Your task to perform on an android device: delete location history Image 0: 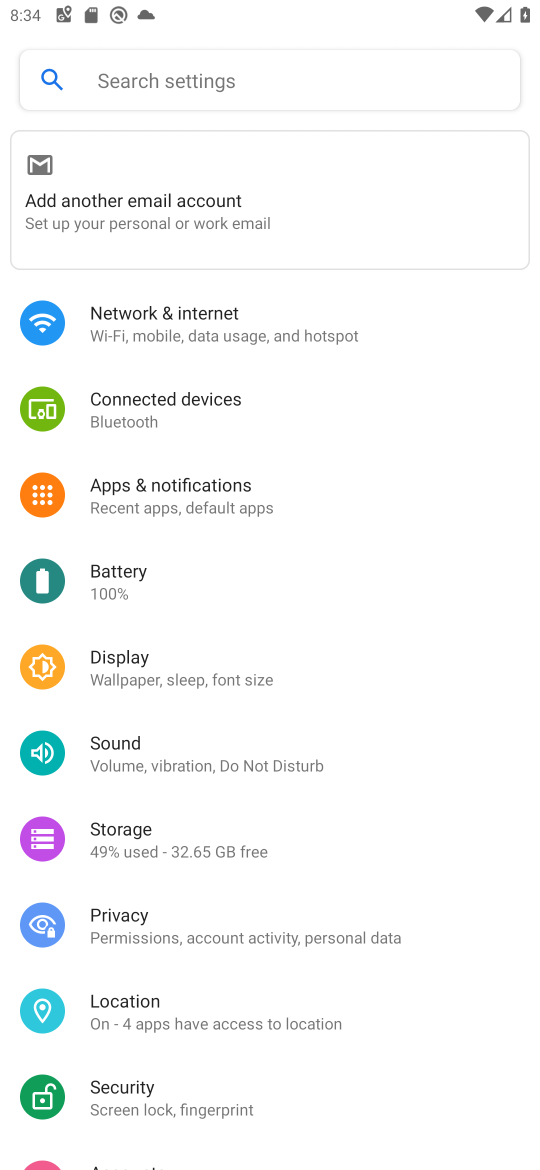
Step 0: press home button
Your task to perform on an android device: delete location history Image 1: 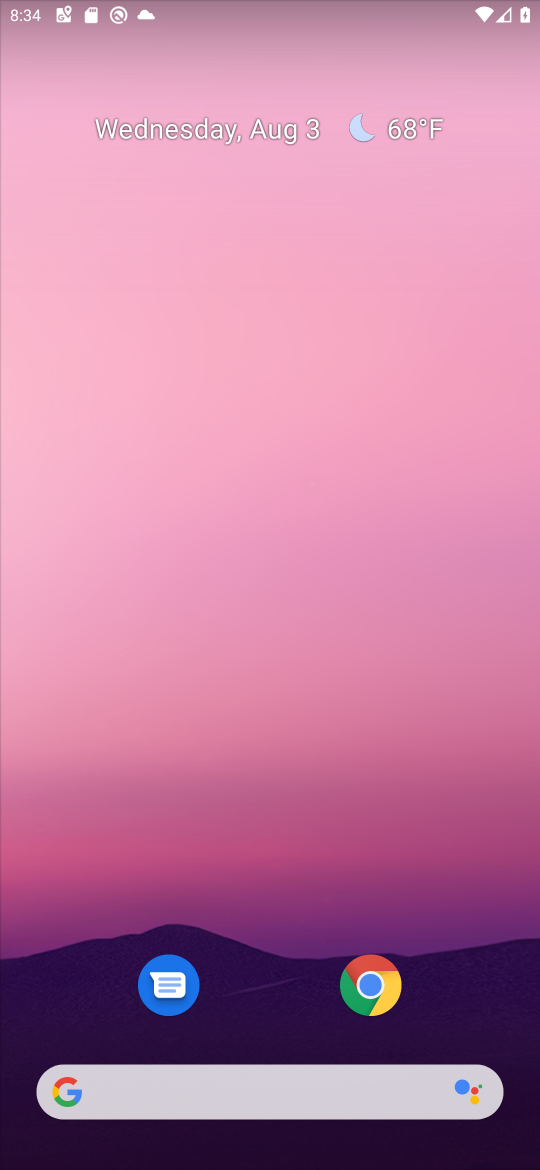
Step 1: drag from (210, 1014) to (212, 243)
Your task to perform on an android device: delete location history Image 2: 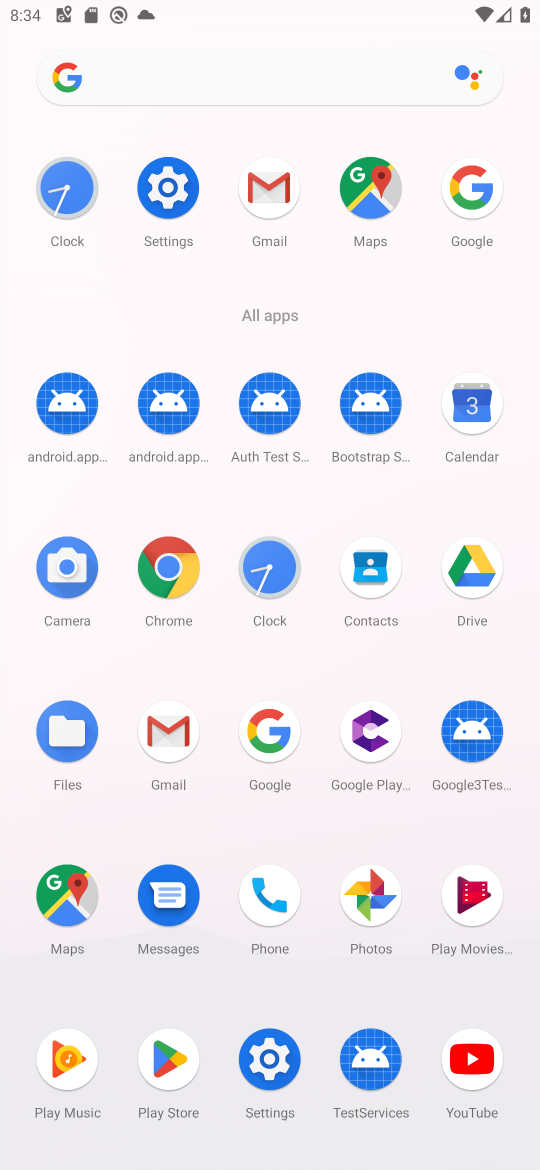
Step 2: click (394, 218)
Your task to perform on an android device: delete location history Image 3: 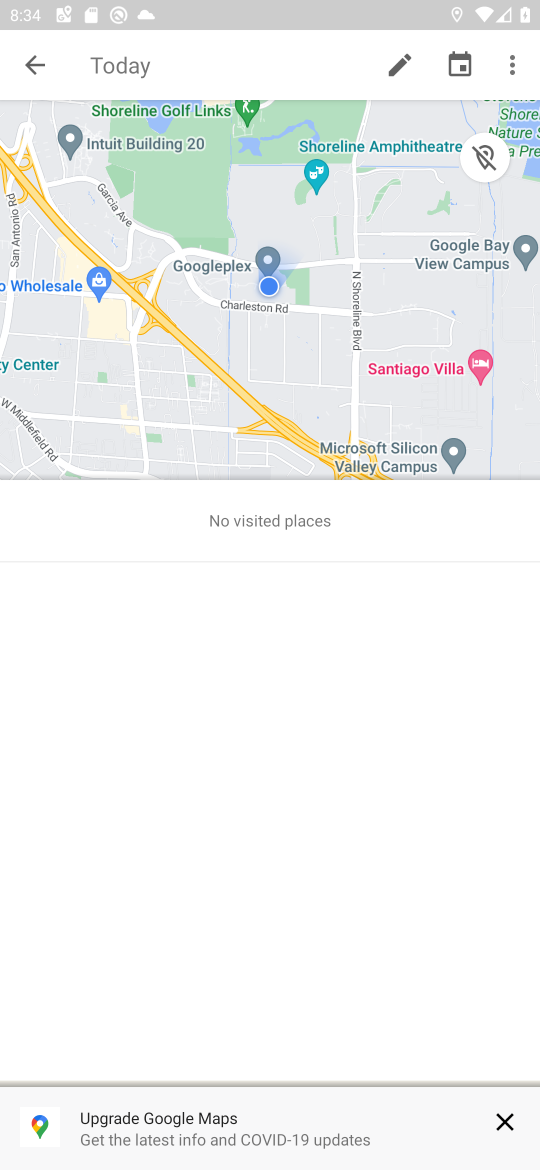
Step 3: click (37, 67)
Your task to perform on an android device: delete location history Image 4: 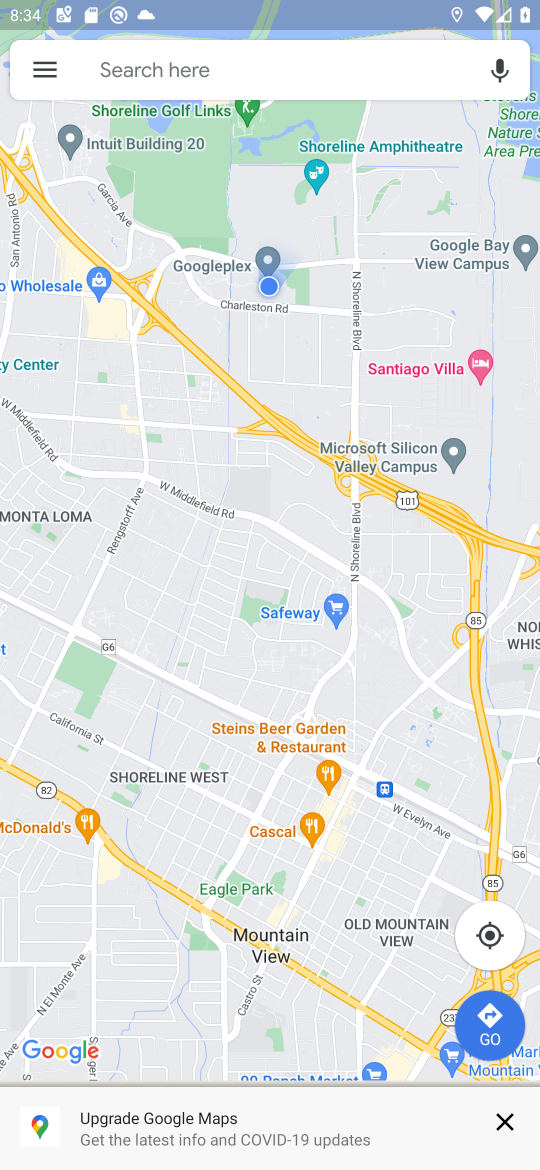
Step 4: click (37, 67)
Your task to perform on an android device: delete location history Image 5: 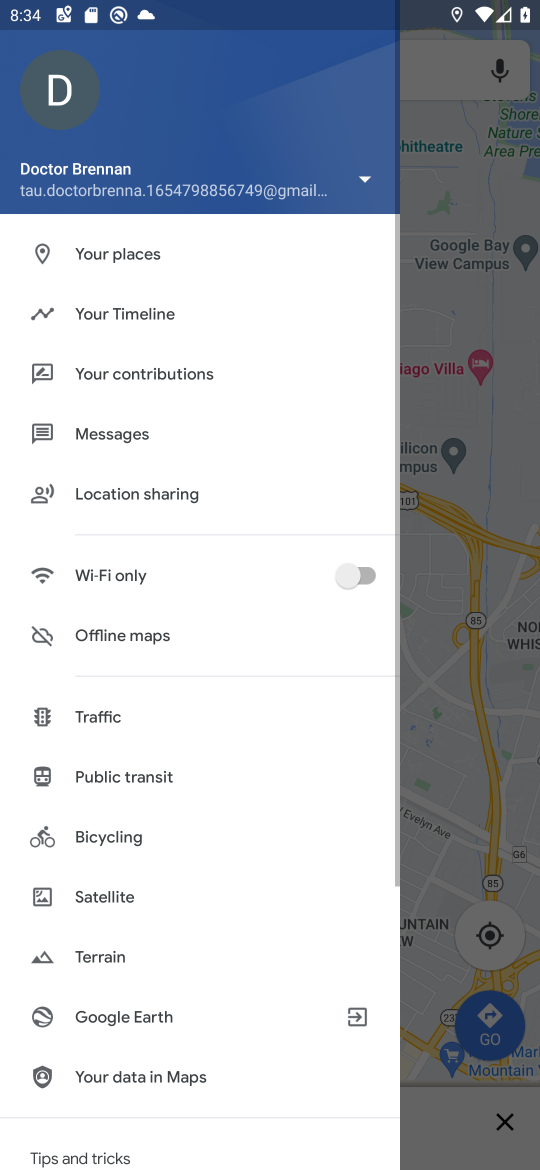
Step 5: click (118, 304)
Your task to perform on an android device: delete location history Image 6: 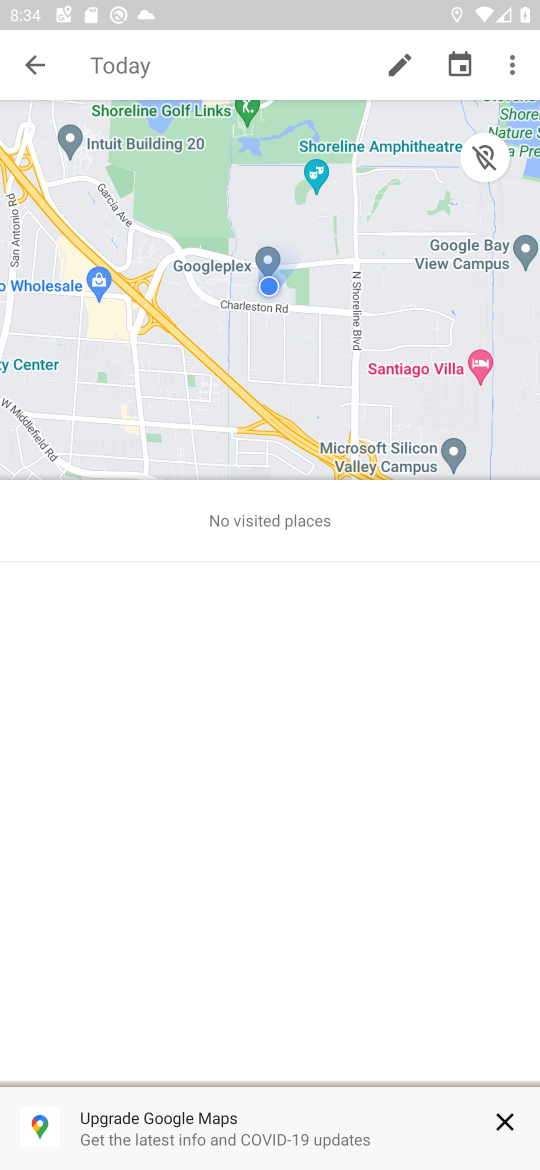
Step 6: click (501, 72)
Your task to perform on an android device: delete location history Image 7: 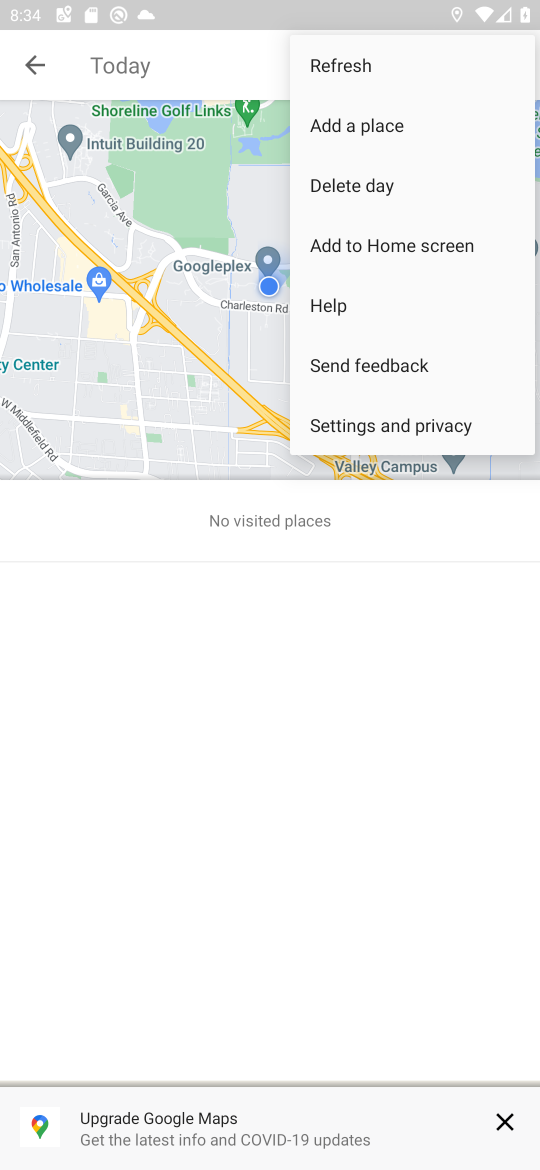
Step 7: click (400, 413)
Your task to perform on an android device: delete location history Image 8: 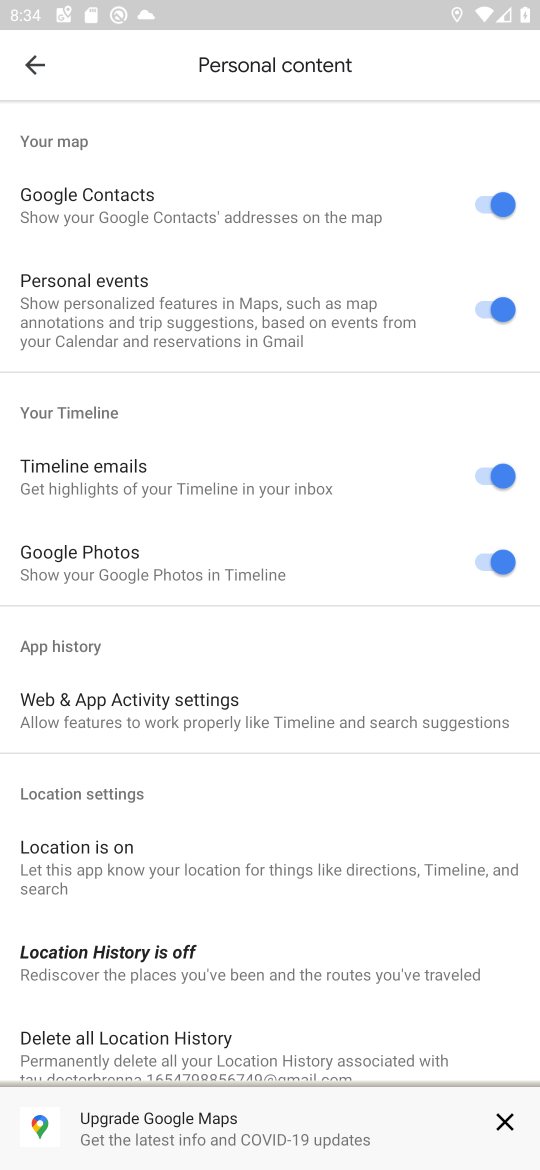
Step 8: drag from (241, 1103) to (256, 490)
Your task to perform on an android device: delete location history Image 9: 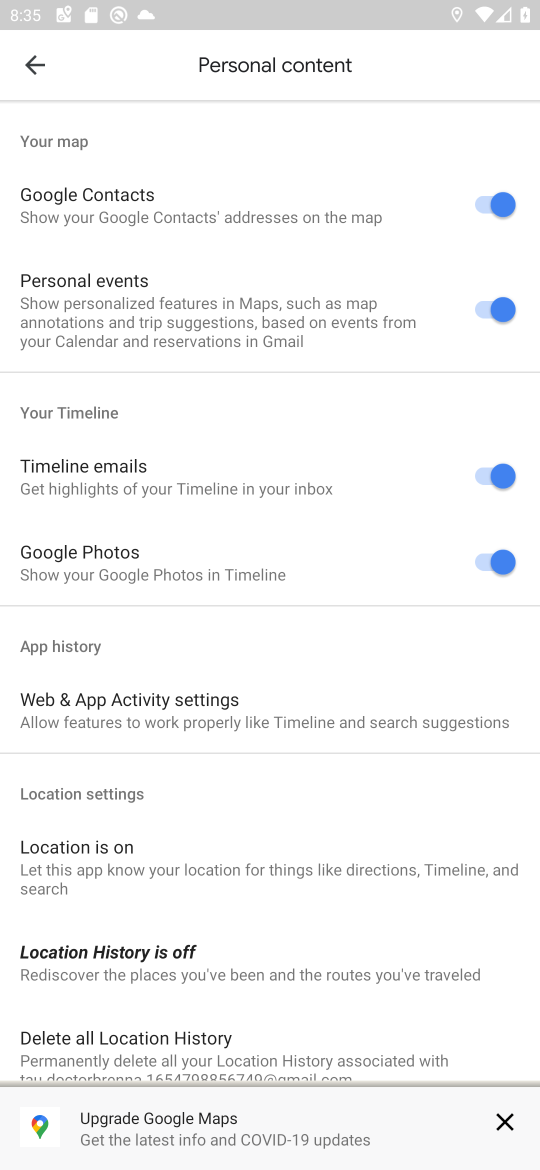
Step 9: drag from (257, 909) to (296, 443)
Your task to perform on an android device: delete location history Image 10: 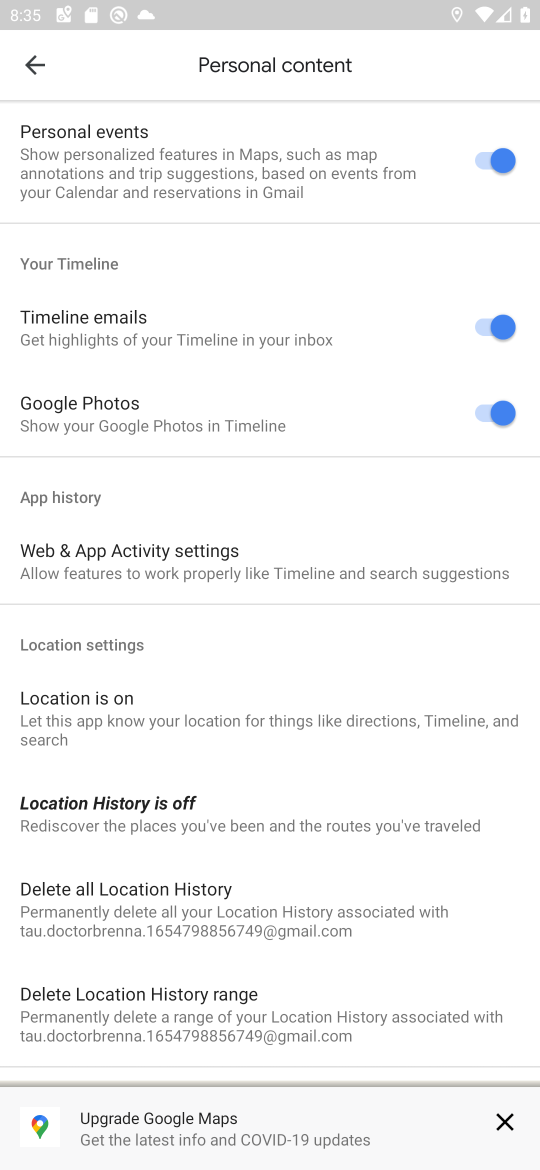
Step 10: drag from (294, 881) to (321, 331)
Your task to perform on an android device: delete location history Image 11: 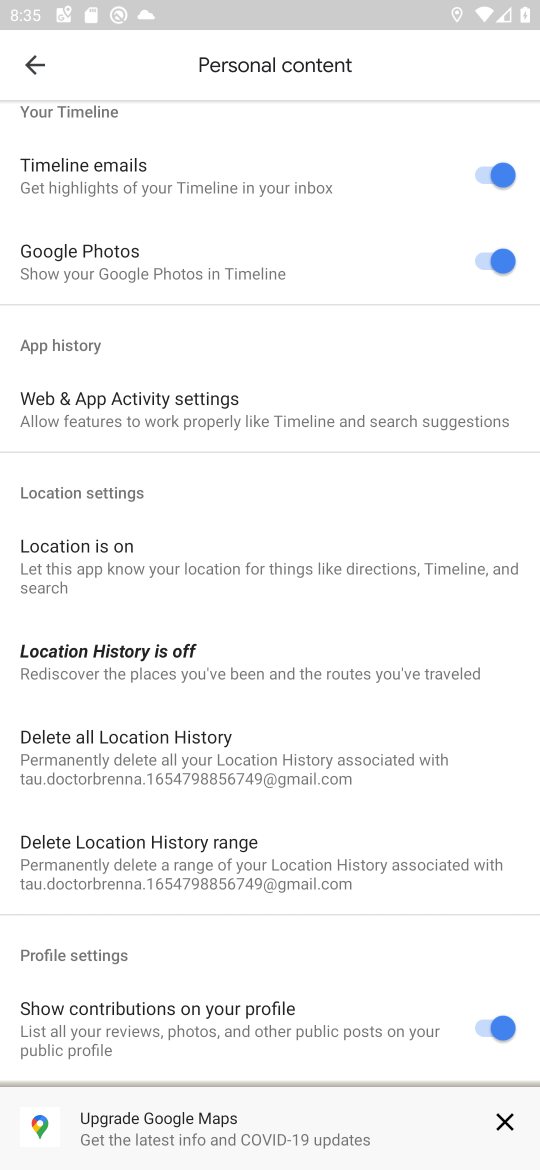
Step 11: drag from (312, 908) to (384, 323)
Your task to perform on an android device: delete location history Image 12: 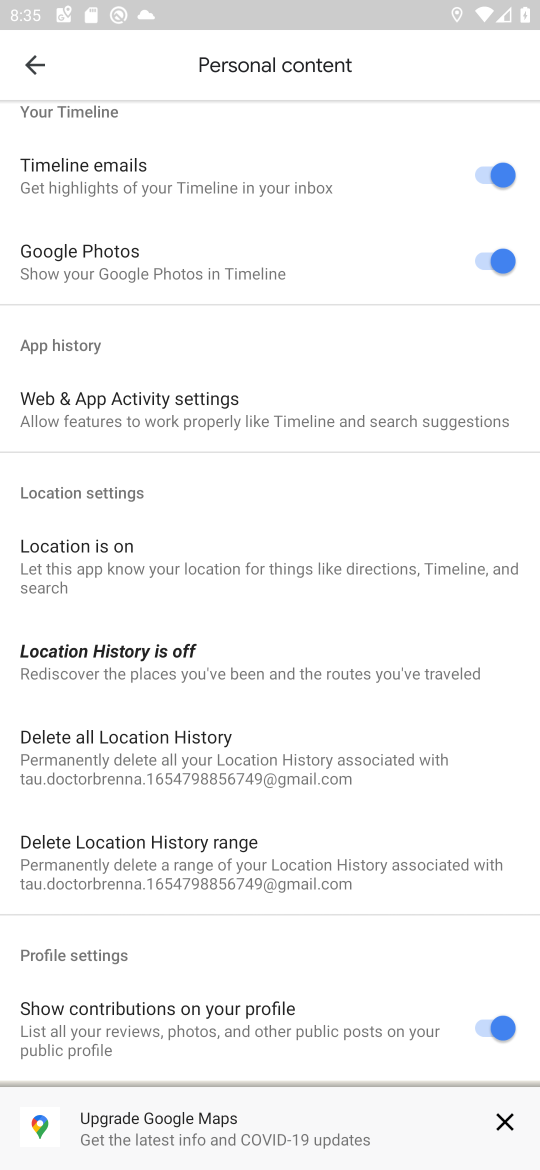
Step 12: click (220, 745)
Your task to perform on an android device: delete location history Image 13: 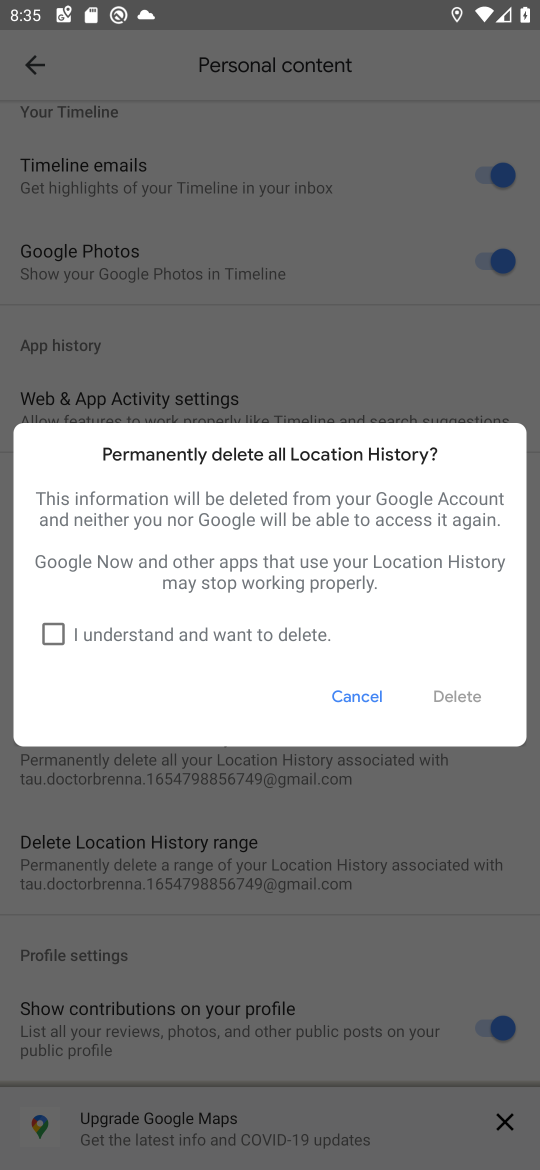
Step 13: click (148, 635)
Your task to perform on an android device: delete location history Image 14: 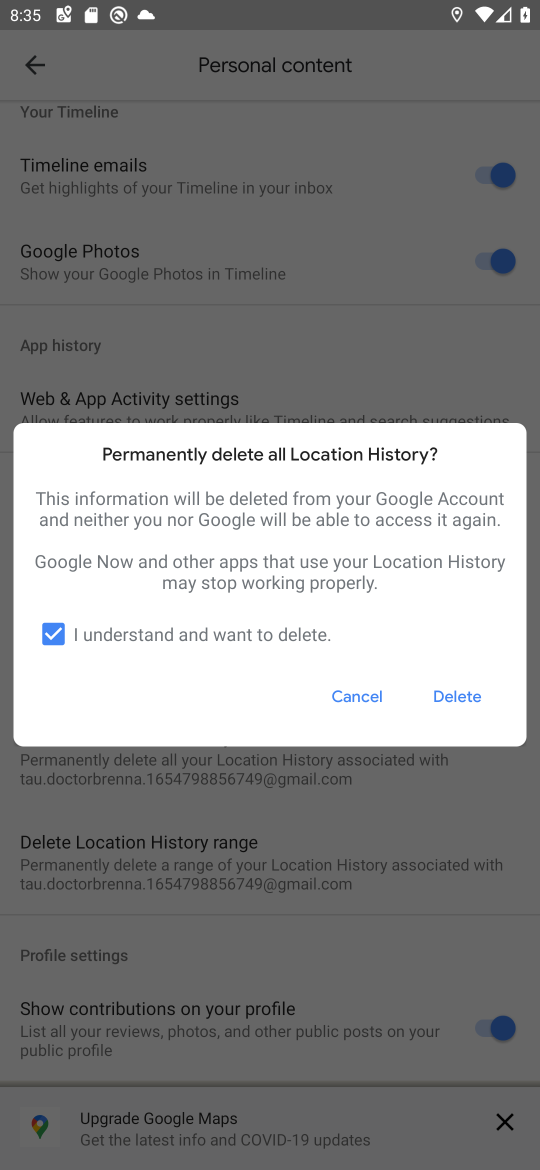
Step 14: click (454, 700)
Your task to perform on an android device: delete location history Image 15: 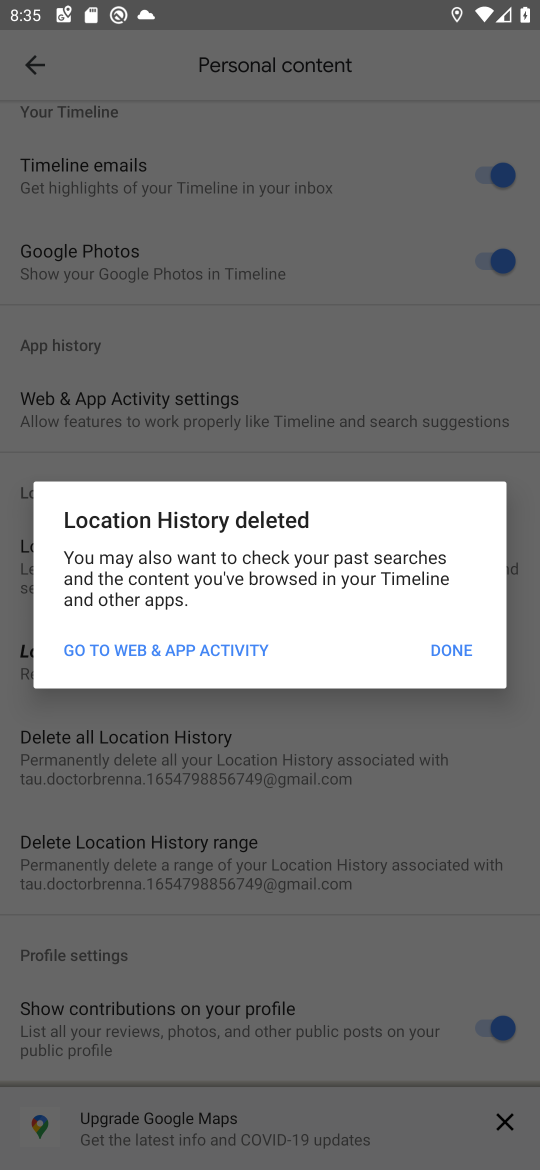
Step 15: click (456, 669)
Your task to perform on an android device: delete location history Image 16: 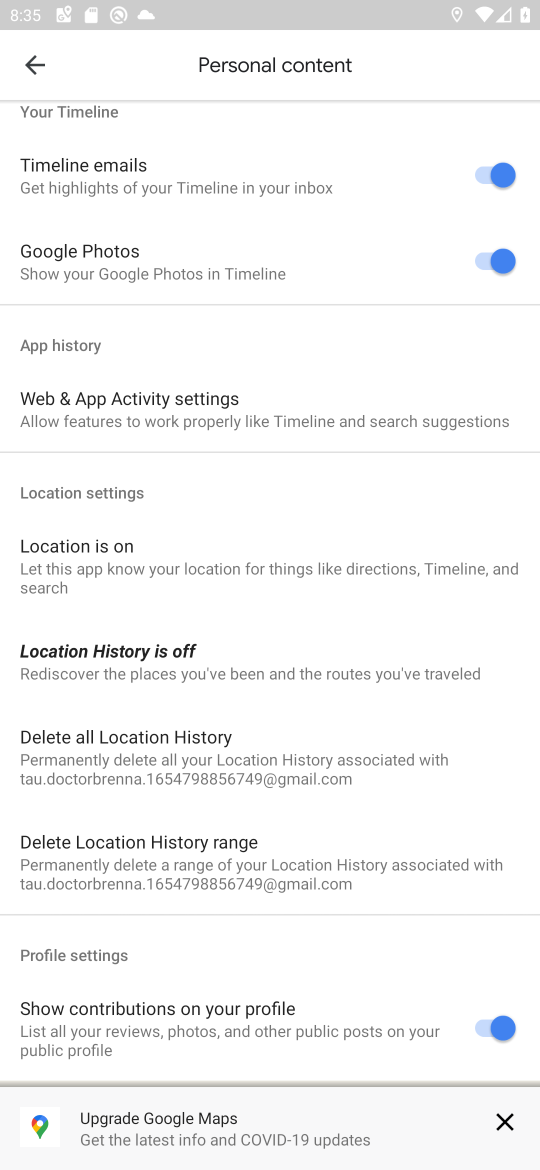
Step 16: task complete